Your task to perform on an android device: Open ESPN.com Image 0: 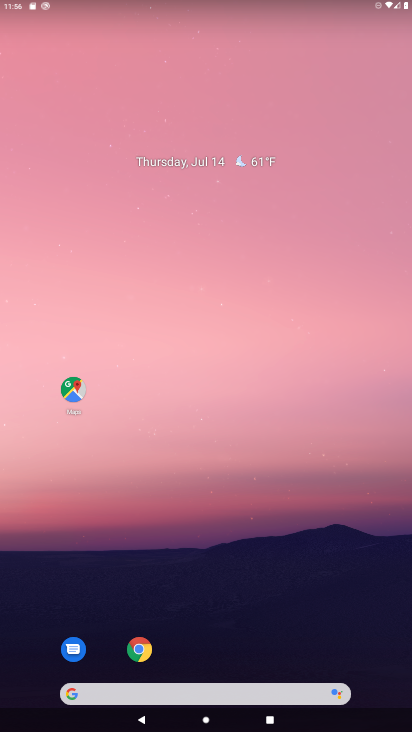
Step 0: click (145, 643)
Your task to perform on an android device: Open ESPN.com Image 1: 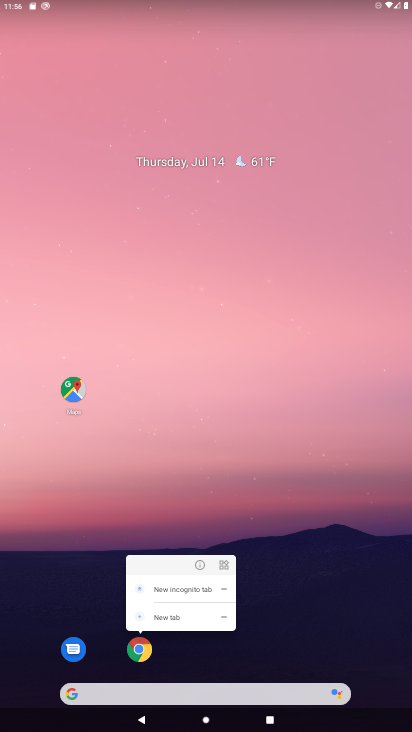
Step 1: click (145, 645)
Your task to perform on an android device: Open ESPN.com Image 2: 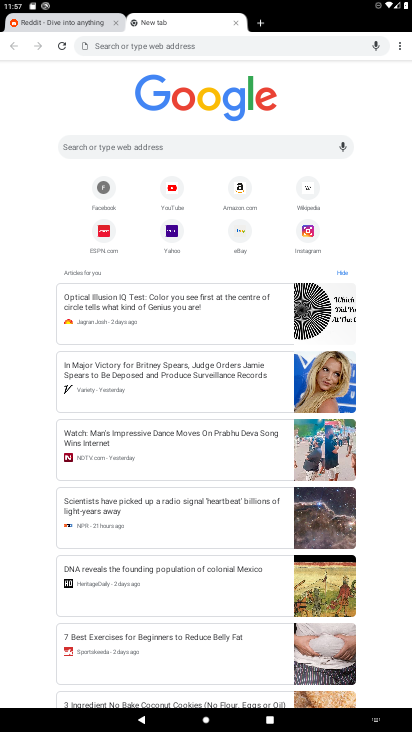
Step 2: click (103, 234)
Your task to perform on an android device: Open ESPN.com Image 3: 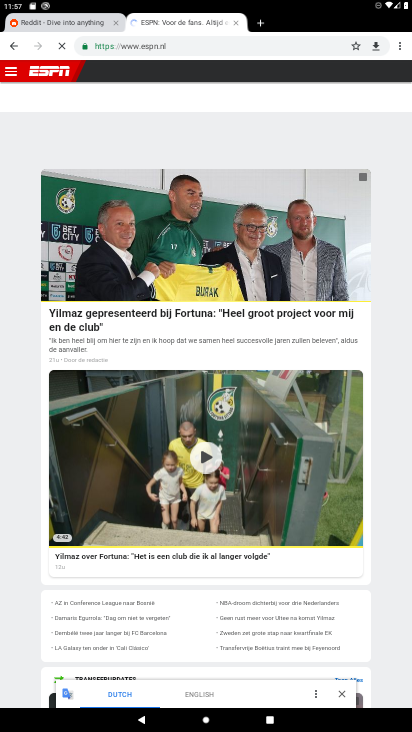
Step 3: task complete